Your task to perform on an android device: Go to Google Image 0: 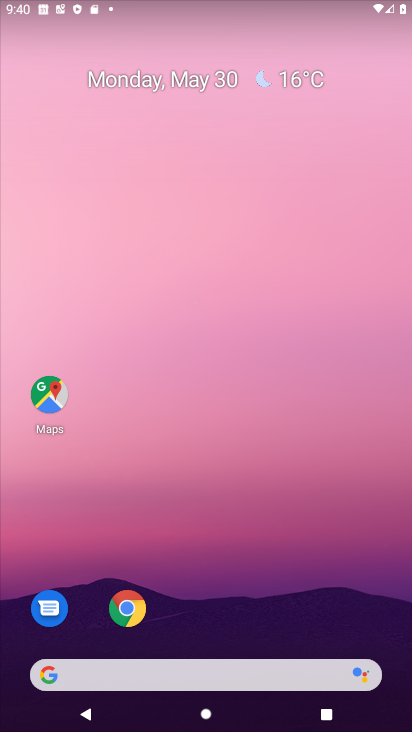
Step 0: click (47, 397)
Your task to perform on an android device: Go to Google Image 1: 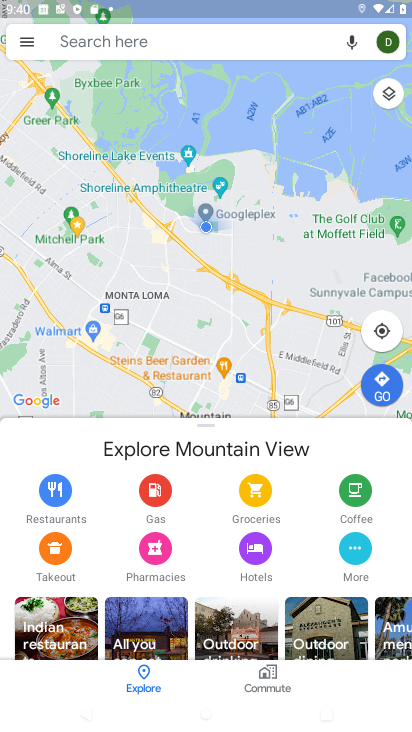
Step 1: press home button
Your task to perform on an android device: Go to Google Image 2: 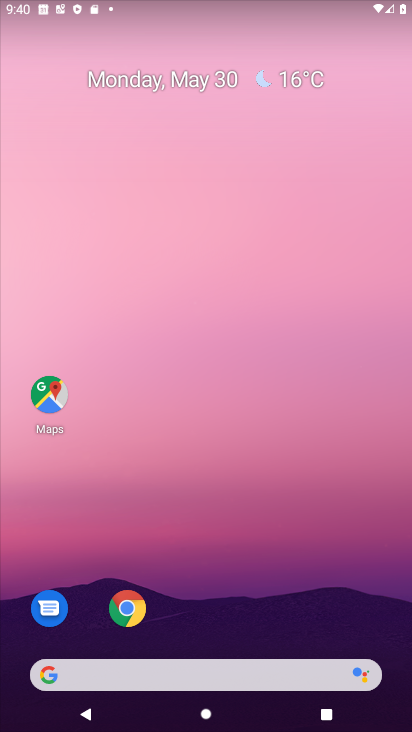
Step 2: drag from (391, 713) to (344, 212)
Your task to perform on an android device: Go to Google Image 3: 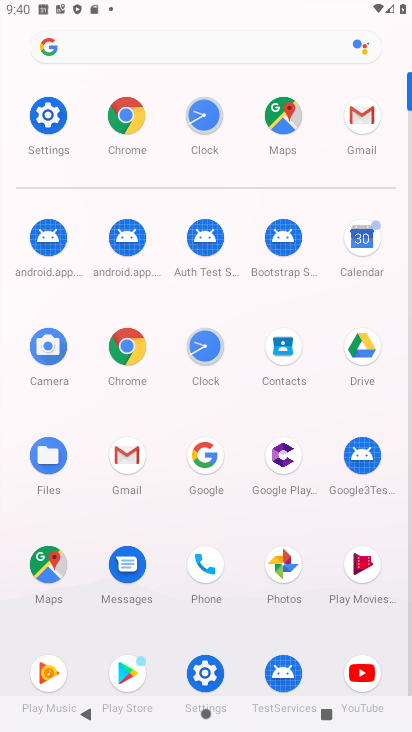
Step 3: click (197, 465)
Your task to perform on an android device: Go to Google Image 4: 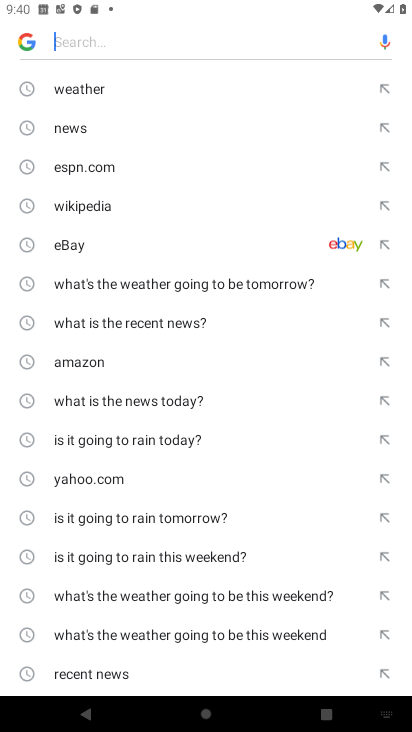
Step 4: press back button
Your task to perform on an android device: Go to Google Image 5: 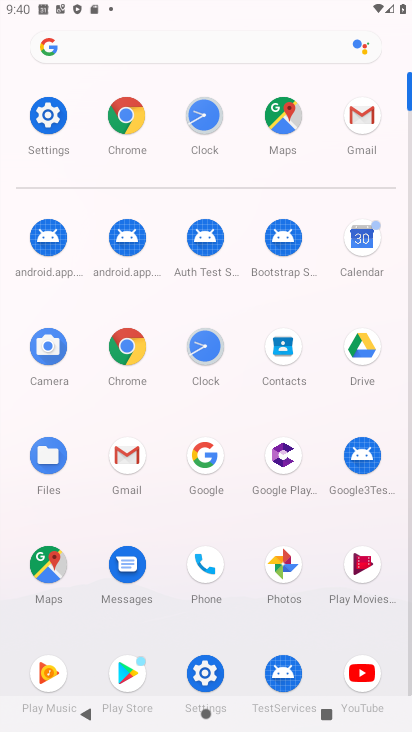
Step 5: click (202, 450)
Your task to perform on an android device: Go to Google Image 6: 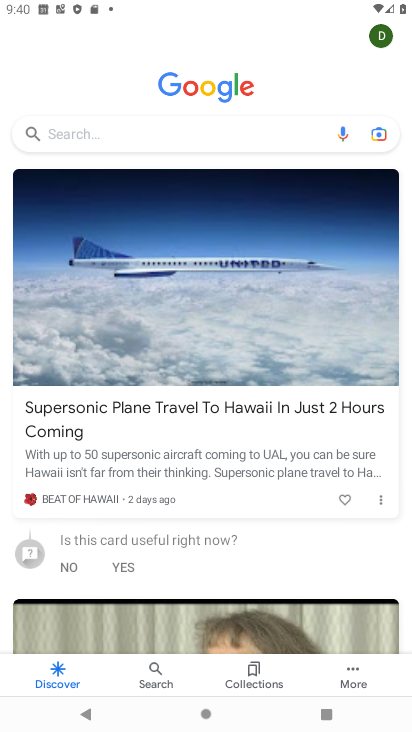
Step 6: task complete